Your task to perform on an android device: delete browsing data in the chrome app Image 0: 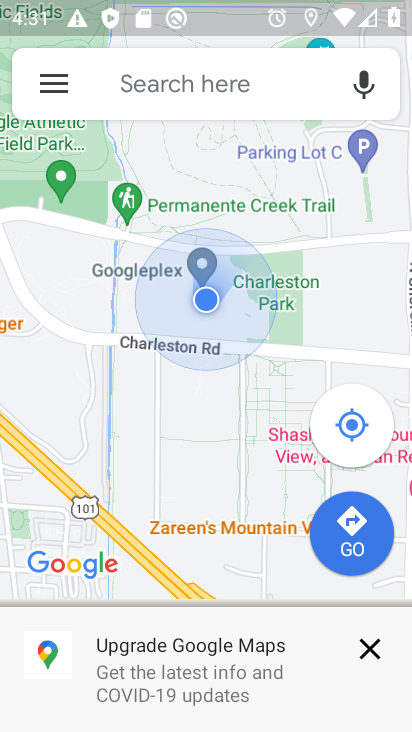
Step 0: press home button
Your task to perform on an android device: delete browsing data in the chrome app Image 1: 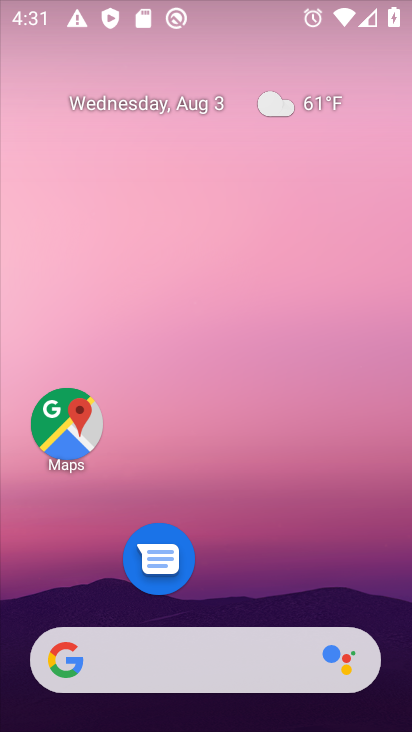
Step 1: drag from (173, 620) to (190, 32)
Your task to perform on an android device: delete browsing data in the chrome app Image 2: 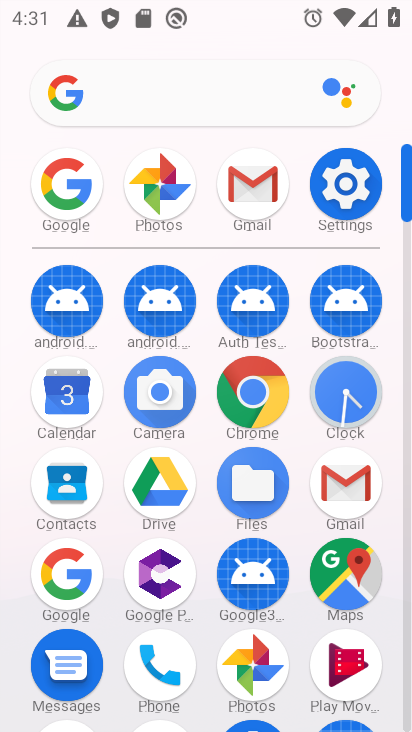
Step 2: click (266, 395)
Your task to perform on an android device: delete browsing data in the chrome app Image 3: 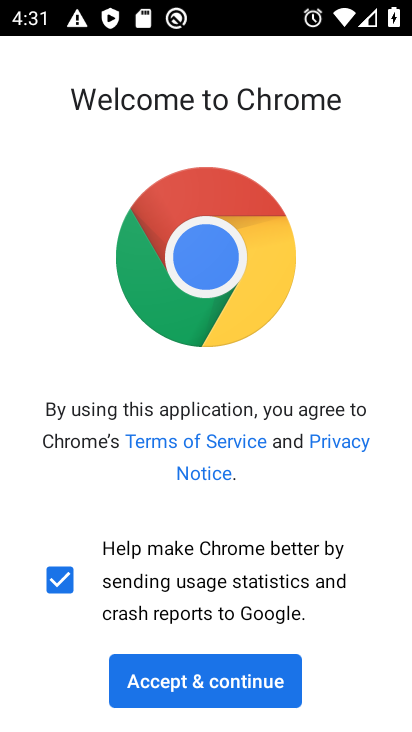
Step 3: click (211, 682)
Your task to perform on an android device: delete browsing data in the chrome app Image 4: 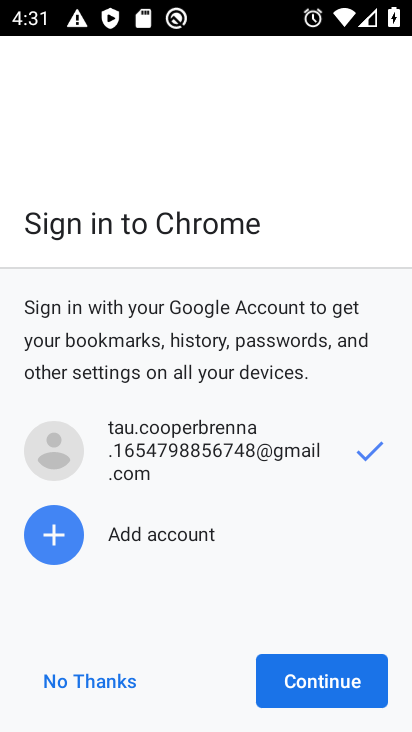
Step 4: click (318, 688)
Your task to perform on an android device: delete browsing data in the chrome app Image 5: 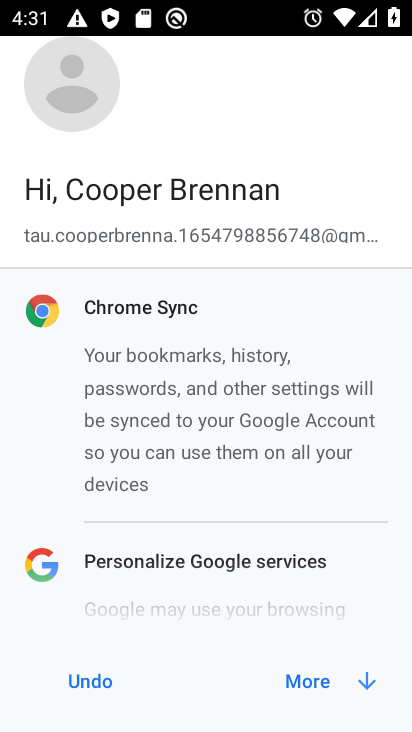
Step 5: click (316, 677)
Your task to perform on an android device: delete browsing data in the chrome app Image 6: 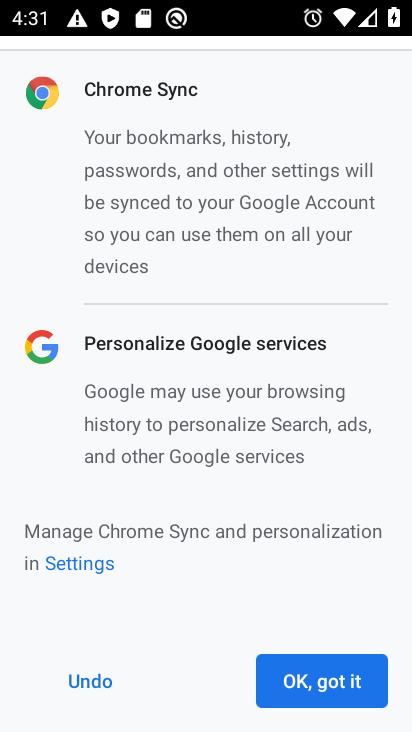
Step 6: click (323, 688)
Your task to perform on an android device: delete browsing data in the chrome app Image 7: 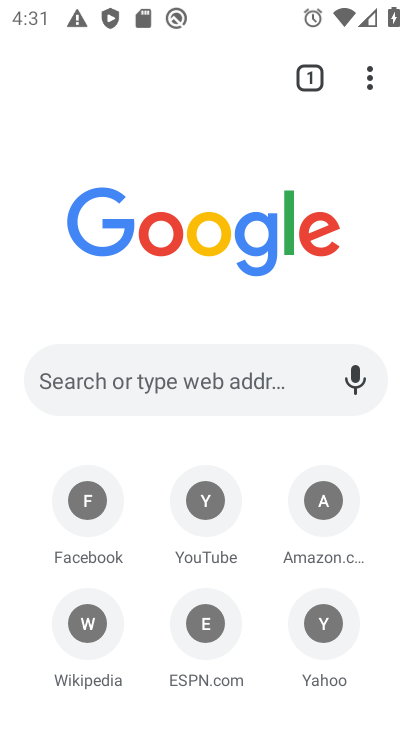
Step 7: click (369, 75)
Your task to perform on an android device: delete browsing data in the chrome app Image 8: 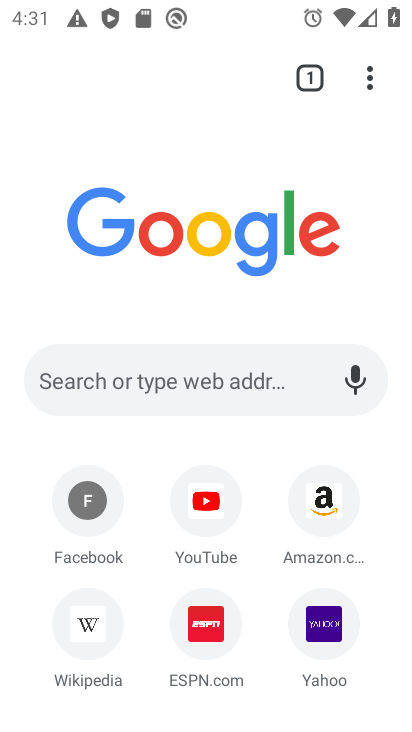
Step 8: click (367, 79)
Your task to perform on an android device: delete browsing data in the chrome app Image 9: 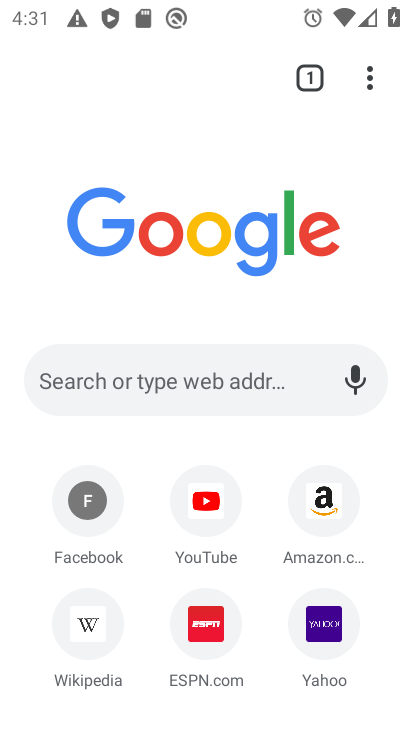
Step 9: click (367, 79)
Your task to perform on an android device: delete browsing data in the chrome app Image 10: 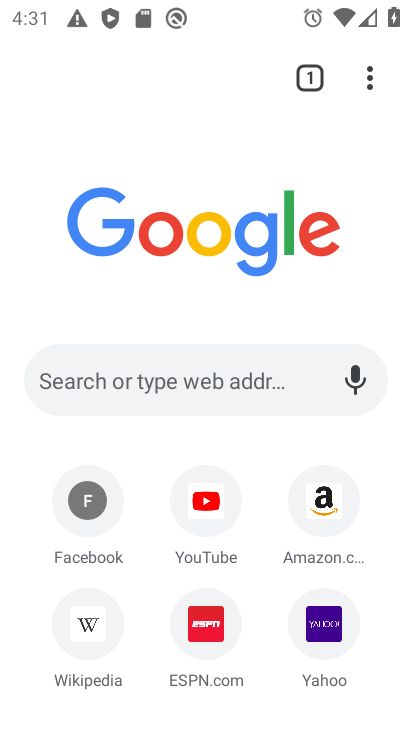
Step 10: click (367, 79)
Your task to perform on an android device: delete browsing data in the chrome app Image 11: 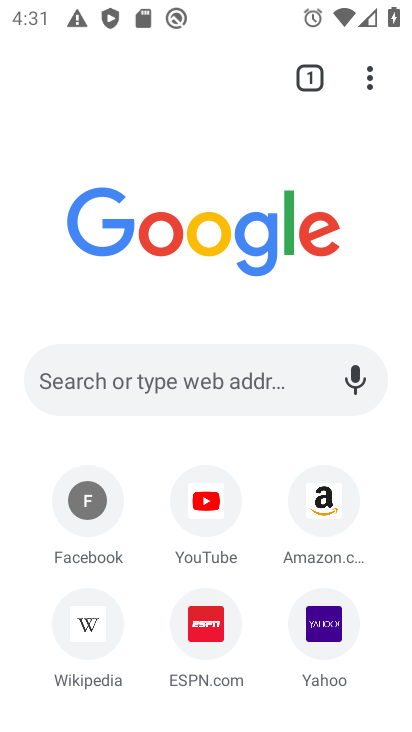
Step 11: click (367, 79)
Your task to perform on an android device: delete browsing data in the chrome app Image 12: 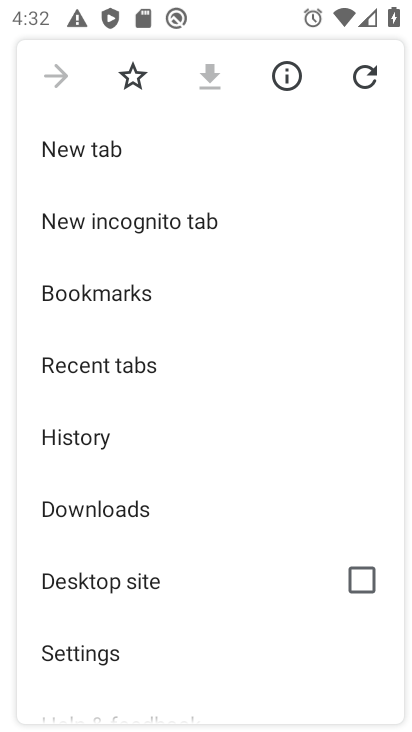
Step 12: click (99, 428)
Your task to perform on an android device: delete browsing data in the chrome app Image 13: 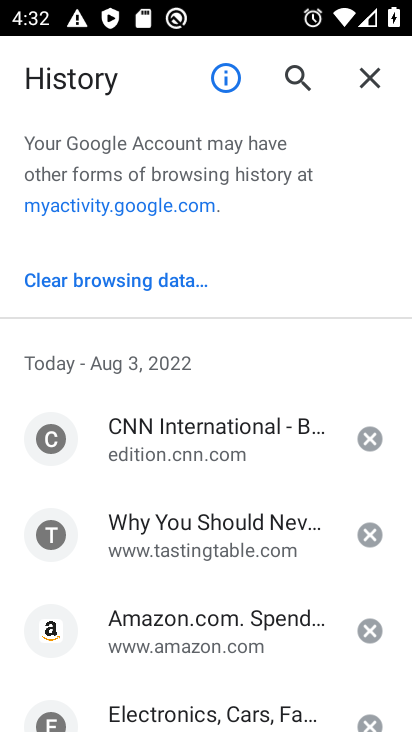
Step 13: click (116, 292)
Your task to perform on an android device: delete browsing data in the chrome app Image 14: 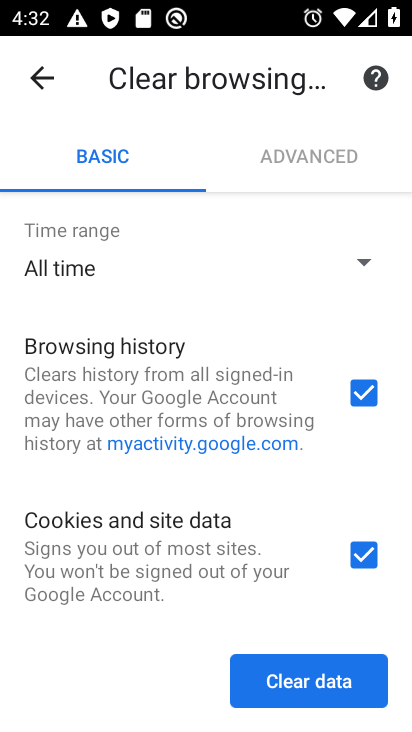
Step 14: click (336, 679)
Your task to perform on an android device: delete browsing data in the chrome app Image 15: 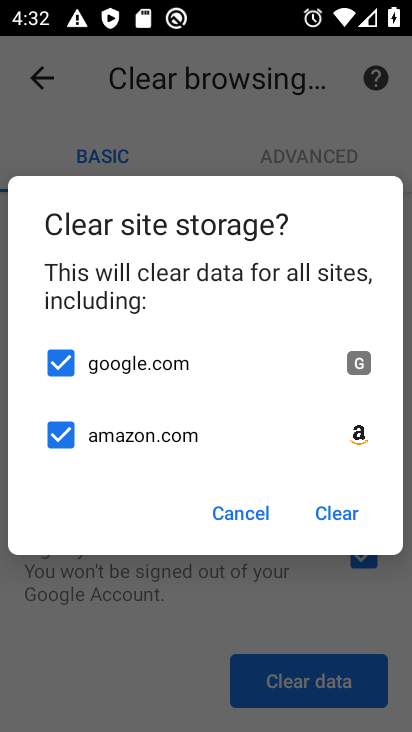
Step 15: click (334, 507)
Your task to perform on an android device: delete browsing data in the chrome app Image 16: 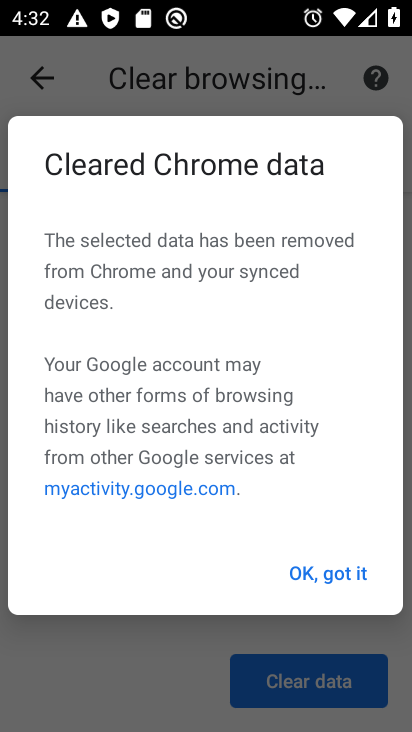
Step 16: click (324, 572)
Your task to perform on an android device: delete browsing data in the chrome app Image 17: 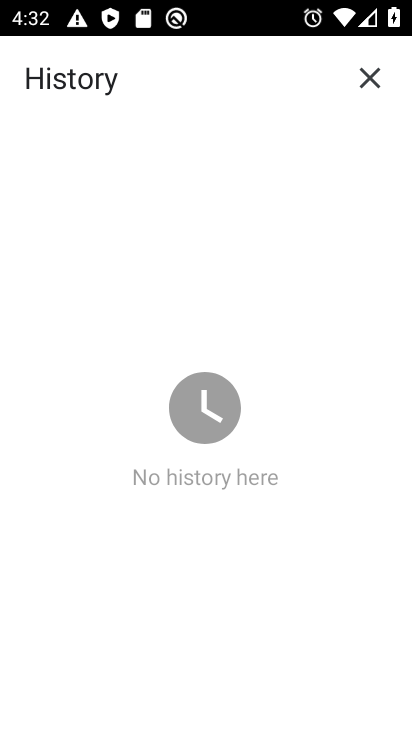
Step 17: task complete